Your task to perform on an android device: open app "Duolingo: language lessons" (install if not already installed) Image 0: 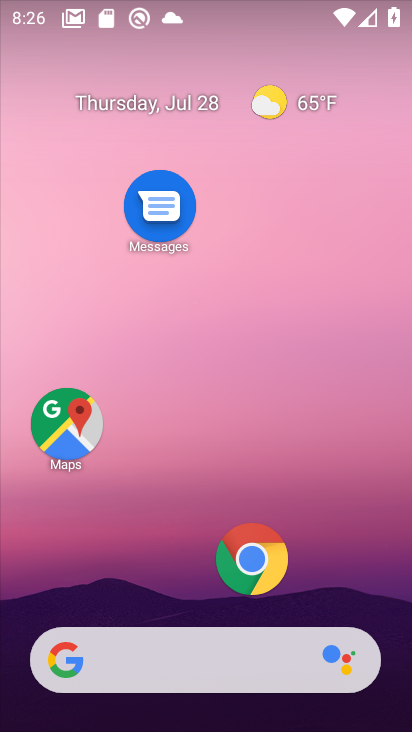
Step 0: drag from (154, 605) to (167, 0)
Your task to perform on an android device: open app "Duolingo: language lessons" (install if not already installed) Image 1: 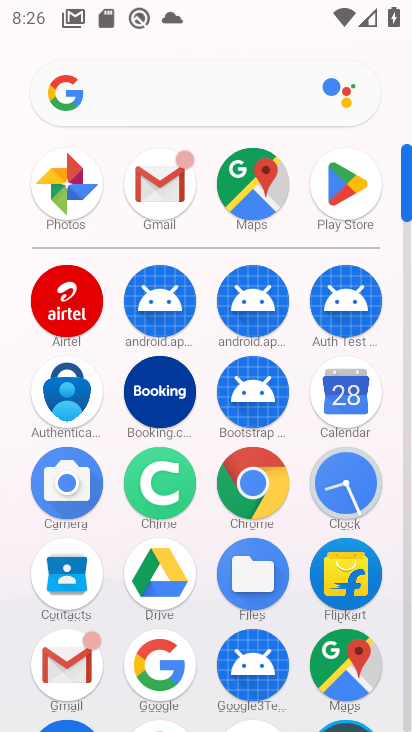
Step 1: click (351, 198)
Your task to perform on an android device: open app "Duolingo: language lessons" (install if not already installed) Image 2: 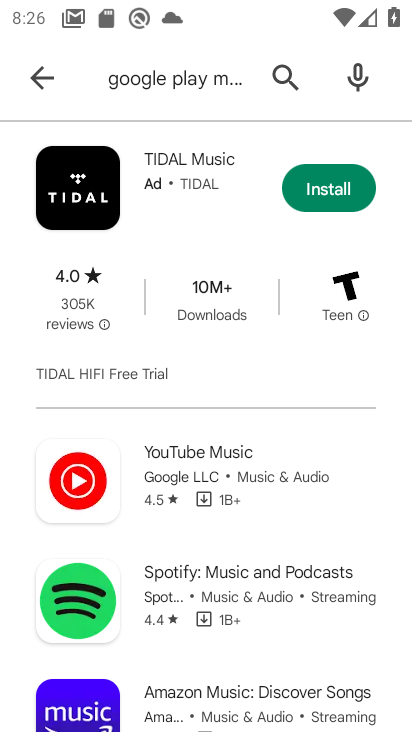
Step 2: click (151, 85)
Your task to perform on an android device: open app "Duolingo: language lessons" (install if not already installed) Image 3: 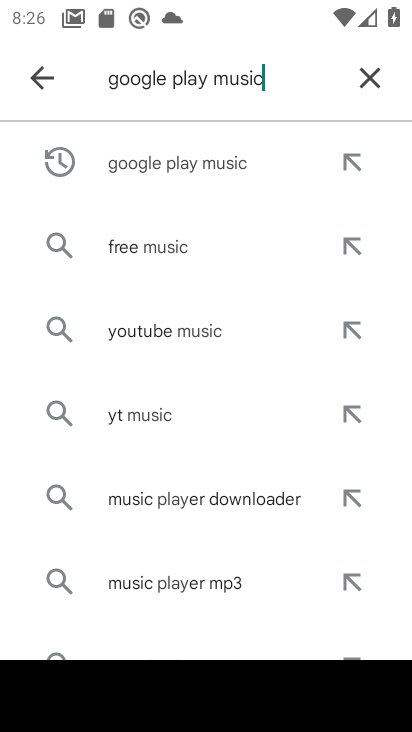
Step 3: click (204, 79)
Your task to perform on an android device: open app "Duolingo: language lessons" (install if not already installed) Image 4: 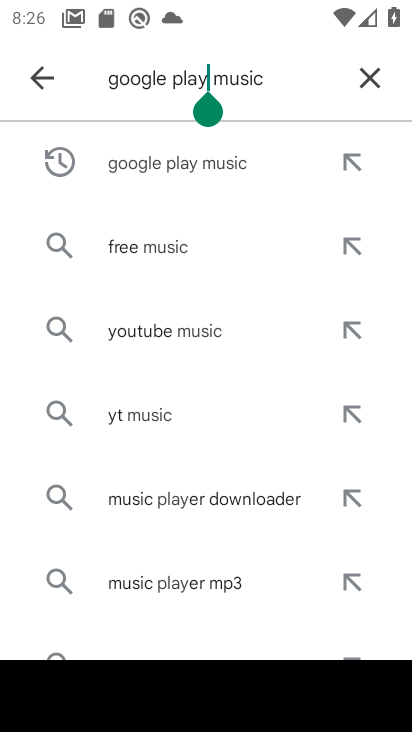
Step 4: click (354, 74)
Your task to perform on an android device: open app "Duolingo: language lessons" (install if not already installed) Image 5: 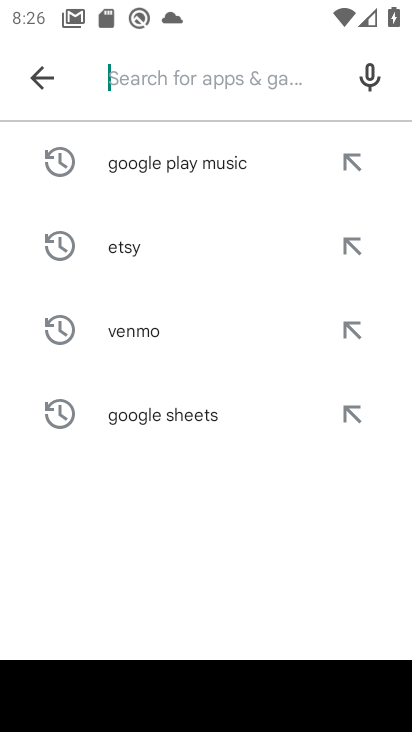
Step 5: type "Duolingo"
Your task to perform on an android device: open app "Duolingo: language lessons" (install if not already installed) Image 6: 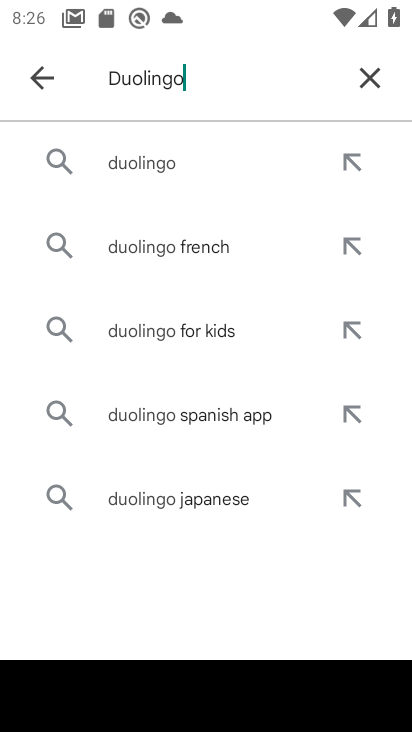
Step 6: click (169, 170)
Your task to perform on an android device: open app "Duolingo: language lessons" (install if not already installed) Image 7: 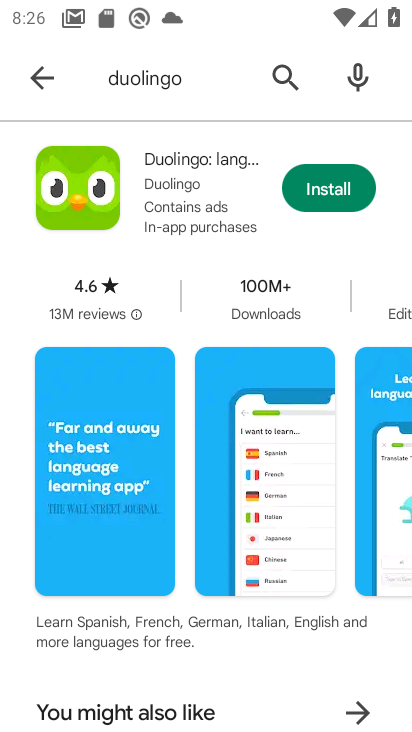
Step 7: click (347, 186)
Your task to perform on an android device: open app "Duolingo: language lessons" (install if not already installed) Image 8: 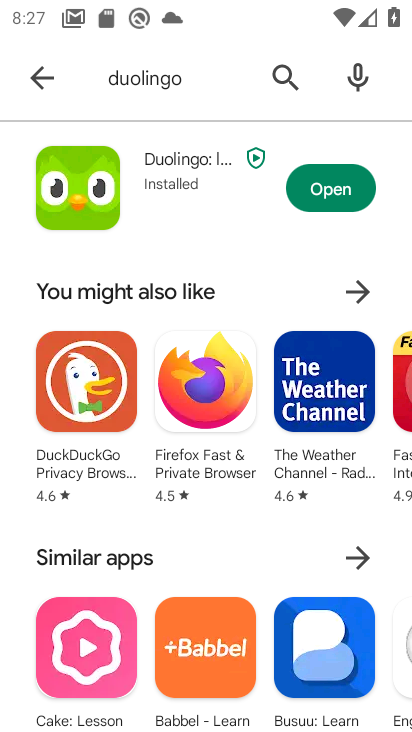
Step 8: click (299, 161)
Your task to perform on an android device: open app "Duolingo: language lessons" (install if not already installed) Image 9: 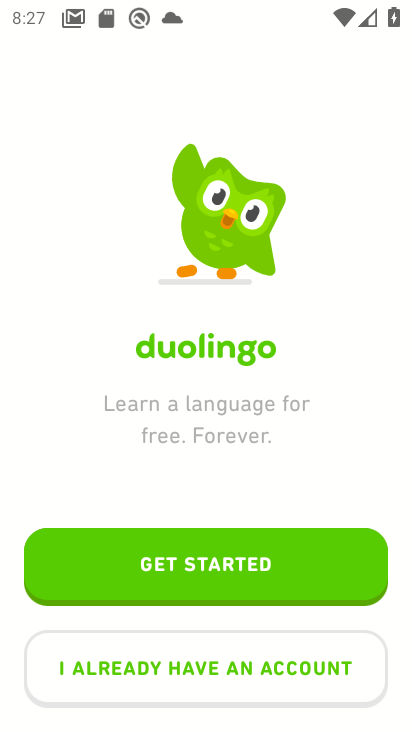
Step 9: click (233, 565)
Your task to perform on an android device: open app "Duolingo: language lessons" (install if not already installed) Image 10: 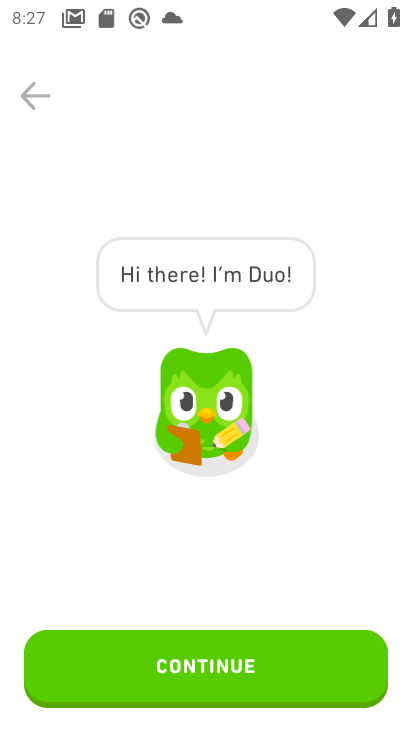
Step 10: click (226, 684)
Your task to perform on an android device: open app "Duolingo: language lessons" (install if not already installed) Image 11: 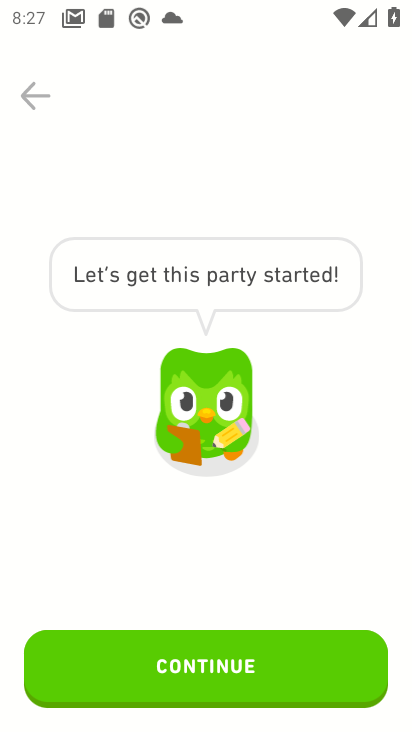
Step 11: click (226, 682)
Your task to perform on an android device: open app "Duolingo: language lessons" (install if not already installed) Image 12: 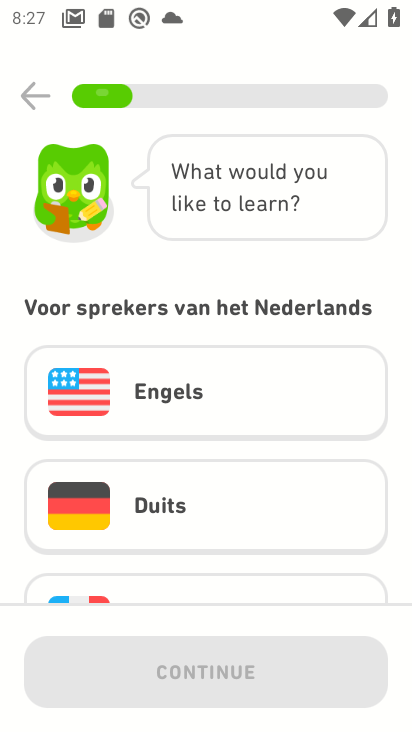
Step 12: click (332, 376)
Your task to perform on an android device: open app "Duolingo: language lessons" (install if not already installed) Image 13: 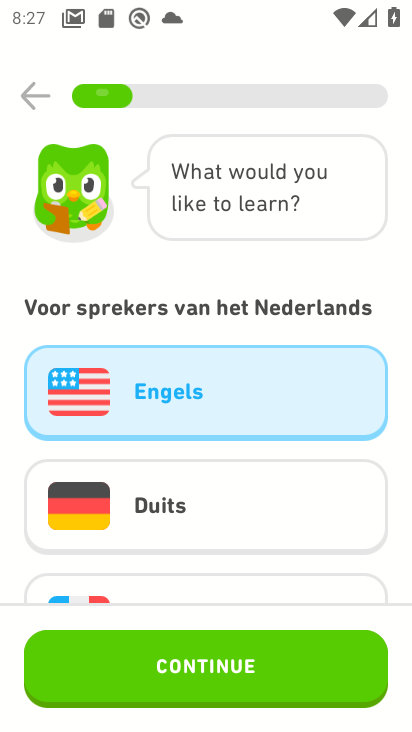
Step 13: task complete